Your task to perform on an android device: When is my next meeting? Image 0: 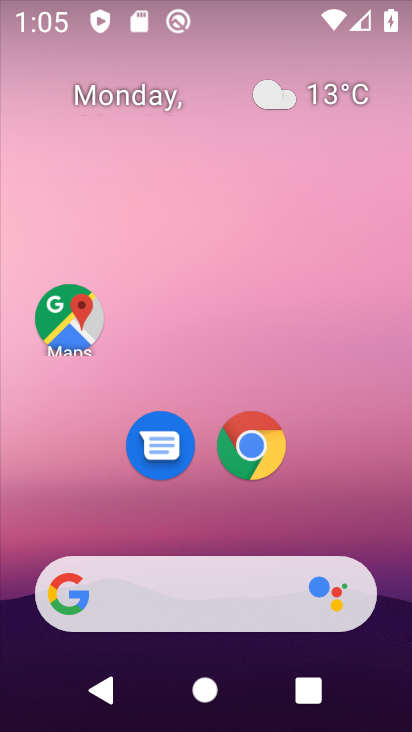
Step 0: drag from (330, 552) to (305, 7)
Your task to perform on an android device: When is my next meeting? Image 1: 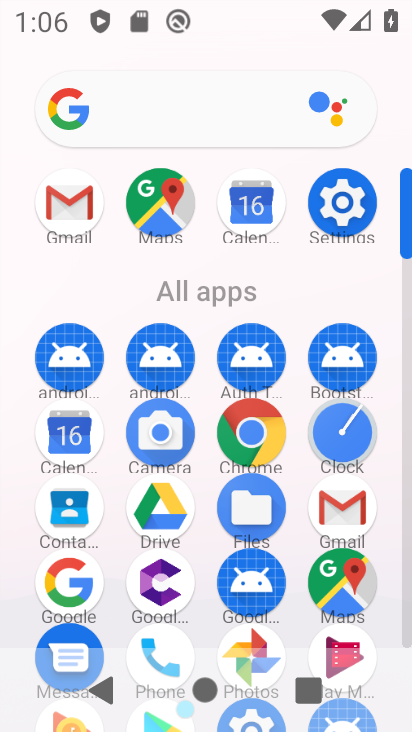
Step 1: click (87, 442)
Your task to perform on an android device: When is my next meeting? Image 2: 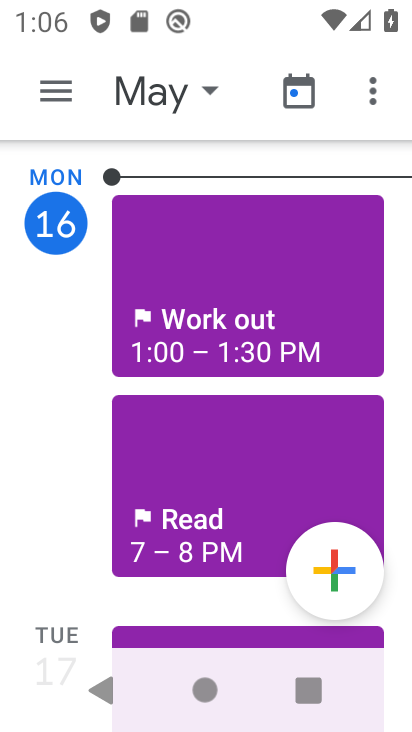
Step 2: drag from (200, 602) to (197, 219)
Your task to perform on an android device: When is my next meeting? Image 3: 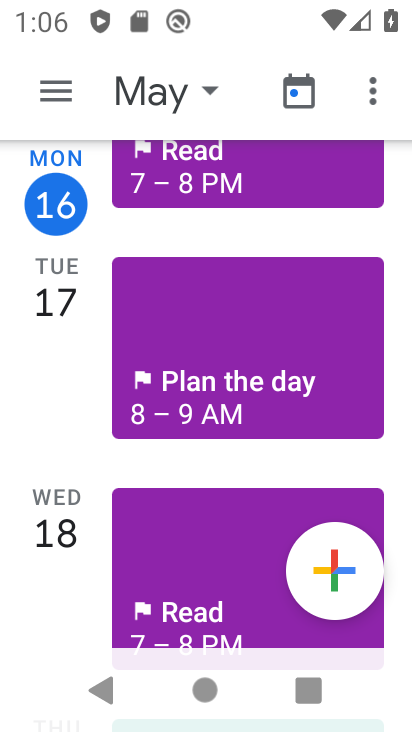
Step 3: drag from (191, 611) to (196, 244)
Your task to perform on an android device: When is my next meeting? Image 4: 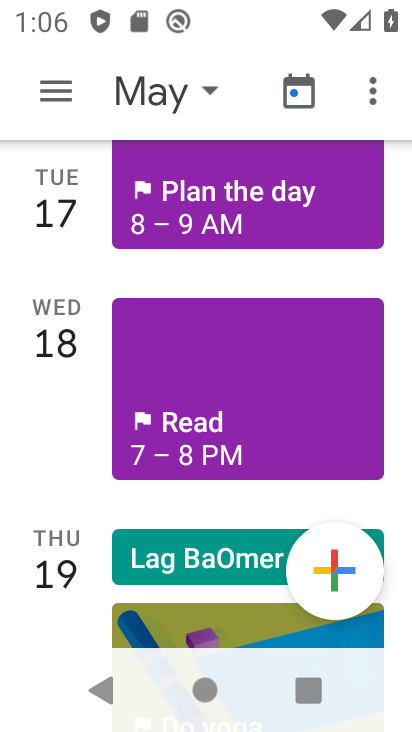
Step 4: drag from (240, 574) to (189, 142)
Your task to perform on an android device: When is my next meeting? Image 5: 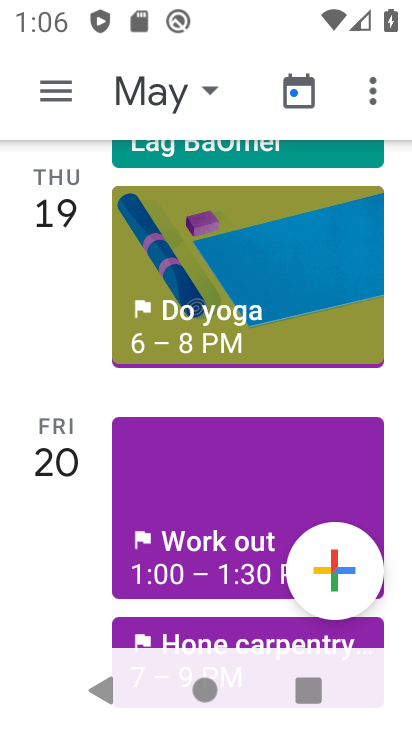
Step 5: drag from (208, 566) to (202, 280)
Your task to perform on an android device: When is my next meeting? Image 6: 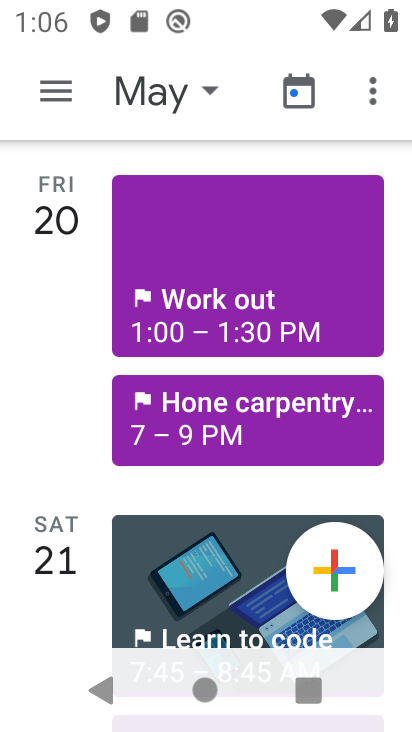
Step 6: drag from (185, 611) to (194, 309)
Your task to perform on an android device: When is my next meeting? Image 7: 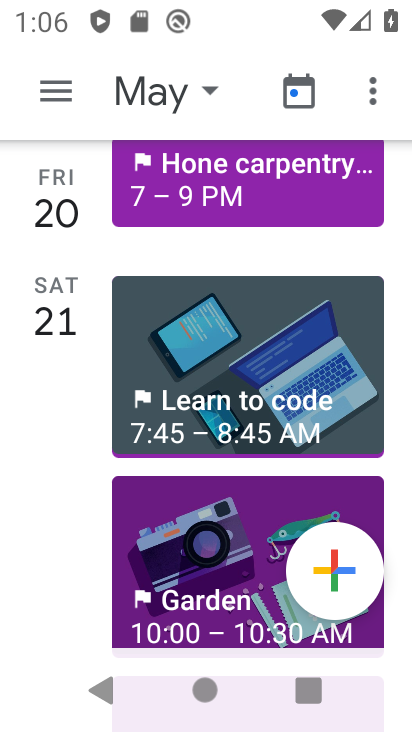
Step 7: drag from (171, 584) to (171, 234)
Your task to perform on an android device: When is my next meeting? Image 8: 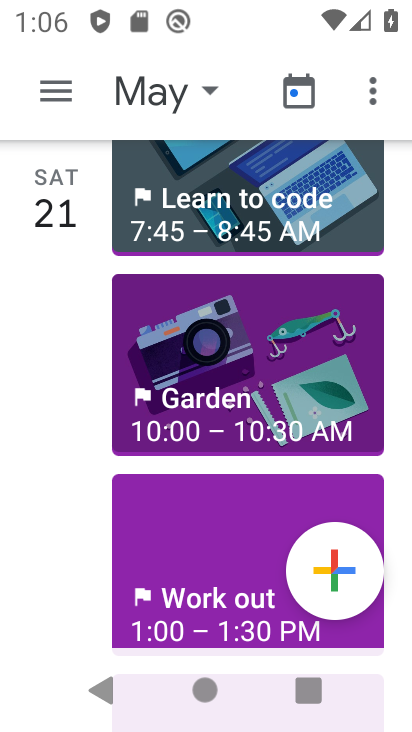
Step 8: drag from (216, 513) to (178, 165)
Your task to perform on an android device: When is my next meeting? Image 9: 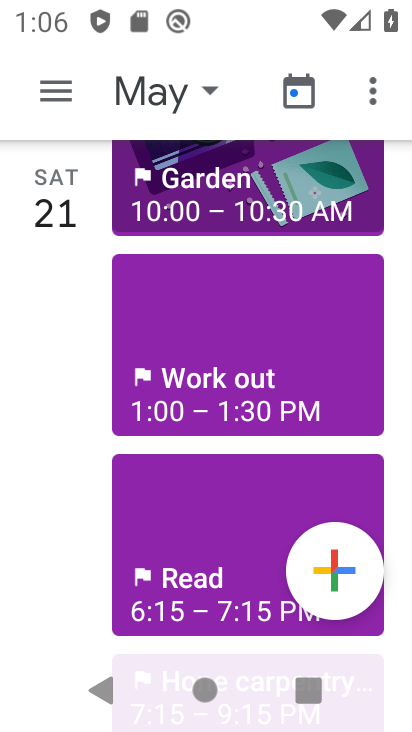
Step 9: drag from (134, 545) to (148, 189)
Your task to perform on an android device: When is my next meeting? Image 10: 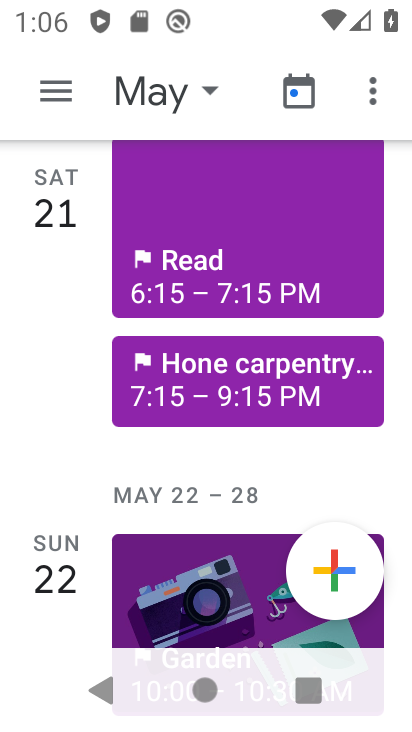
Step 10: drag from (69, 579) to (98, 293)
Your task to perform on an android device: When is my next meeting? Image 11: 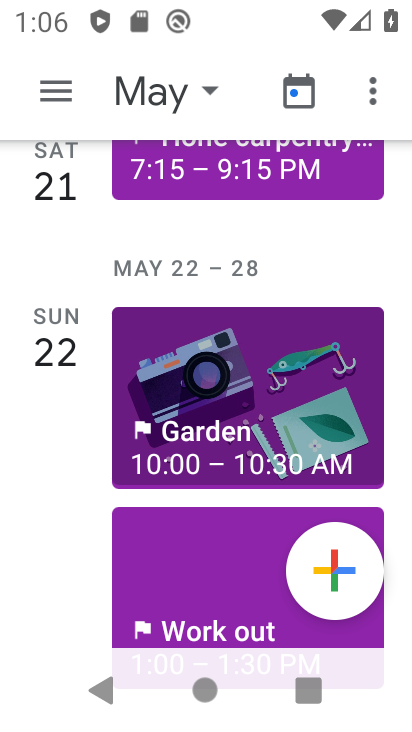
Step 11: drag from (89, 622) to (187, 254)
Your task to perform on an android device: When is my next meeting? Image 12: 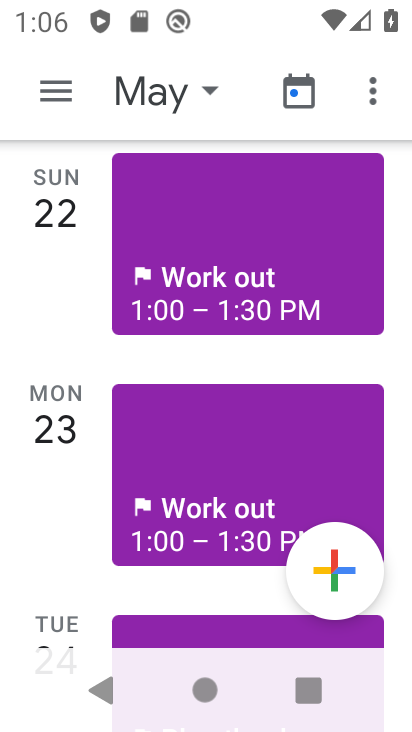
Step 12: drag from (129, 594) to (171, 154)
Your task to perform on an android device: When is my next meeting? Image 13: 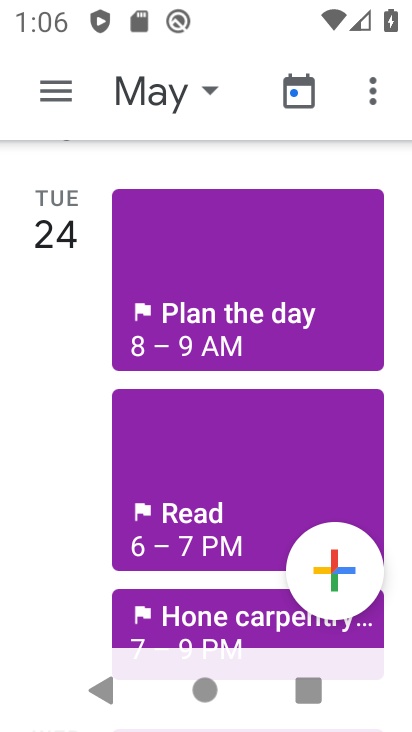
Step 13: drag from (159, 552) to (167, 105)
Your task to perform on an android device: When is my next meeting? Image 14: 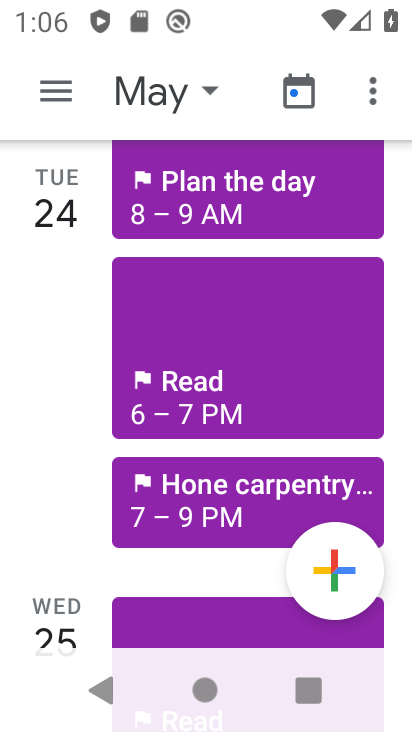
Step 14: drag from (104, 614) to (173, 147)
Your task to perform on an android device: When is my next meeting? Image 15: 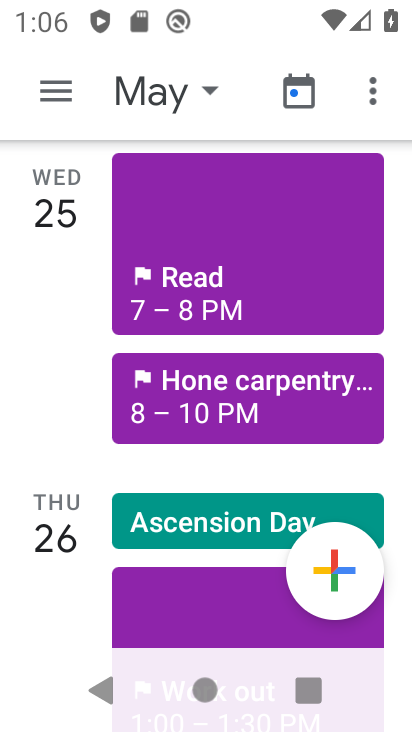
Step 15: click (187, 157)
Your task to perform on an android device: When is my next meeting? Image 16: 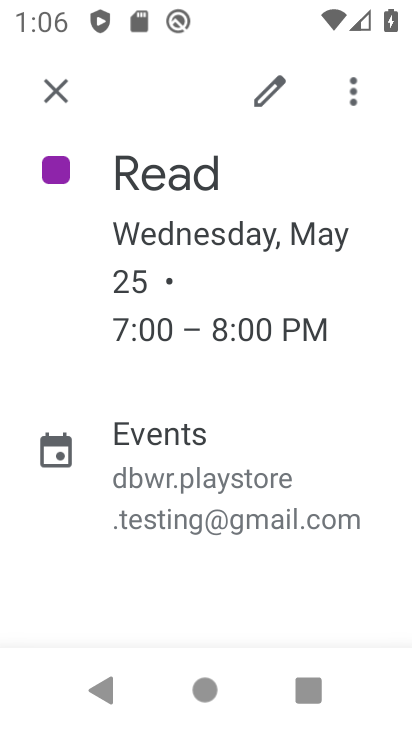
Step 16: click (50, 86)
Your task to perform on an android device: When is my next meeting? Image 17: 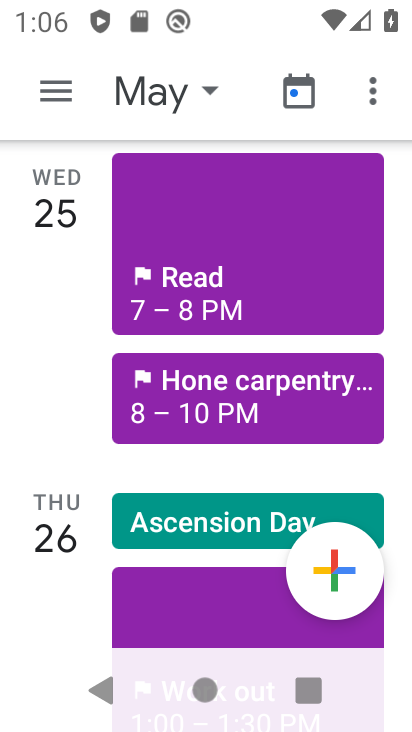
Step 17: click (215, 164)
Your task to perform on an android device: When is my next meeting? Image 18: 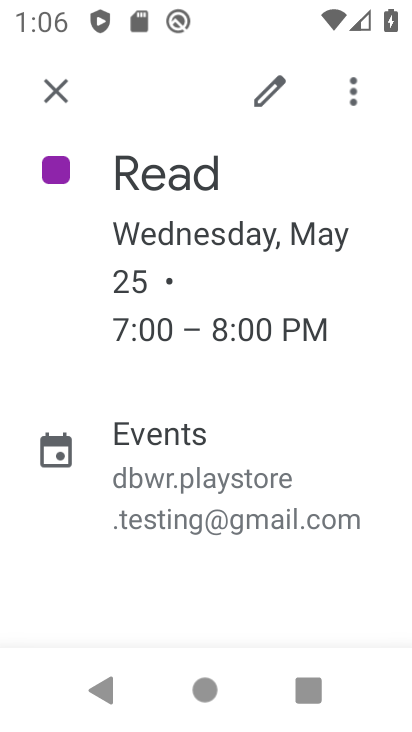
Step 18: click (42, 101)
Your task to perform on an android device: When is my next meeting? Image 19: 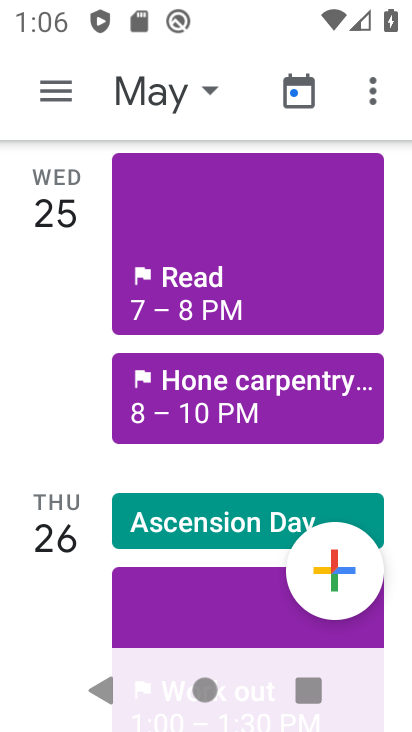
Step 19: task complete